Your task to perform on an android device: Open the stopwatch Image 0: 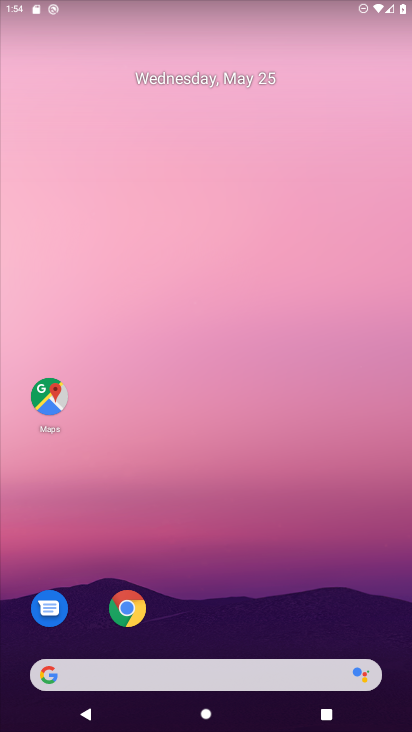
Step 0: drag from (164, 654) to (196, 208)
Your task to perform on an android device: Open the stopwatch Image 1: 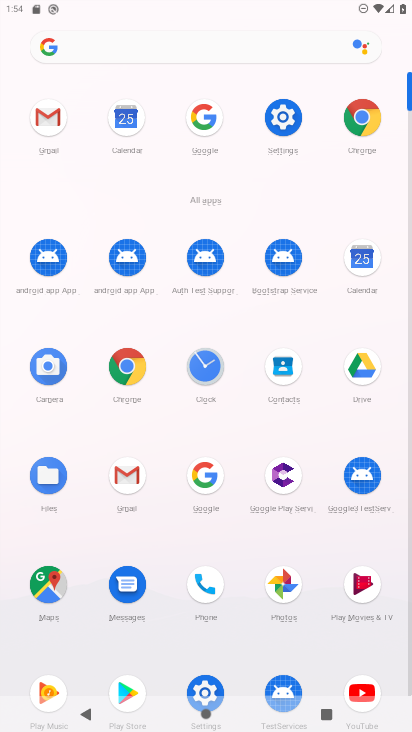
Step 1: click (202, 368)
Your task to perform on an android device: Open the stopwatch Image 2: 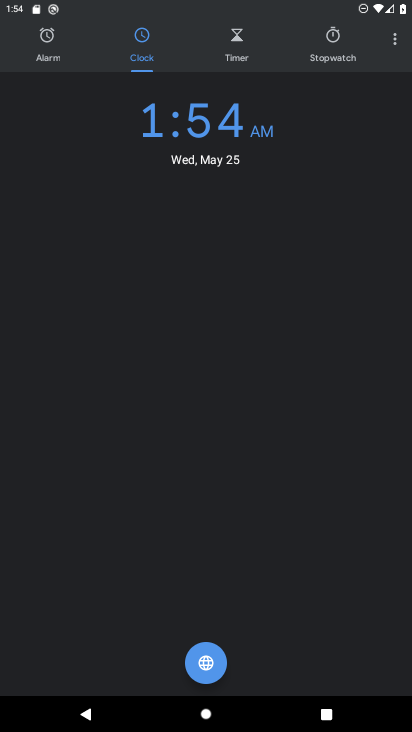
Step 2: click (324, 50)
Your task to perform on an android device: Open the stopwatch Image 3: 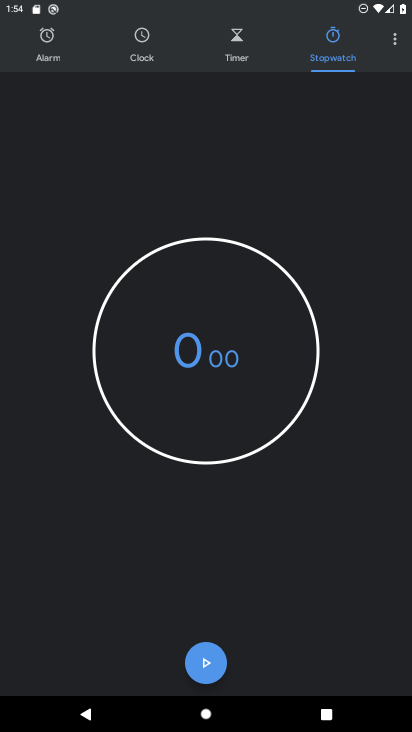
Step 3: task complete